Your task to perform on an android device: read, delete, or share a saved page in the chrome app Image 0: 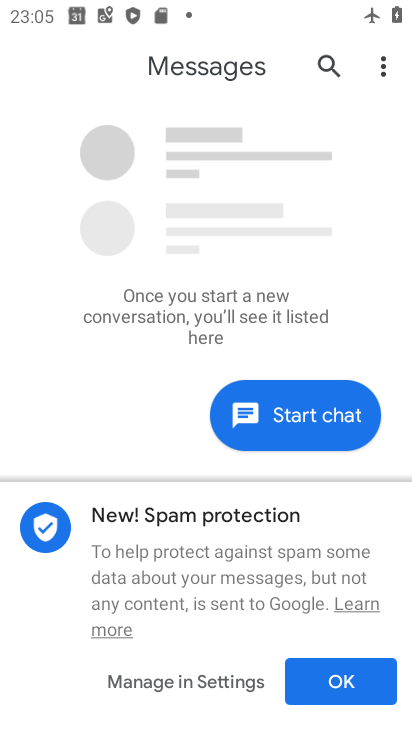
Step 0: press home button
Your task to perform on an android device: read, delete, or share a saved page in the chrome app Image 1: 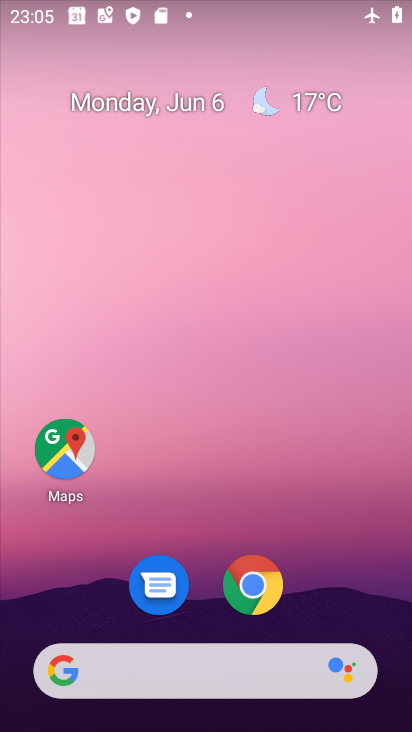
Step 1: click (240, 586)
Your task to perform on an android device: read, delete, or share a saved page in the chrome app Image 2: 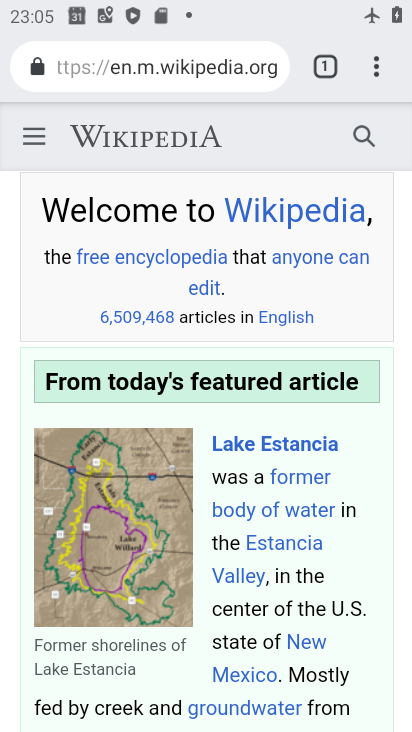
Step 2: click (371, 63)
Your task to perform on an android device: read, delete, or share a saved page in the chrome app Image 3: 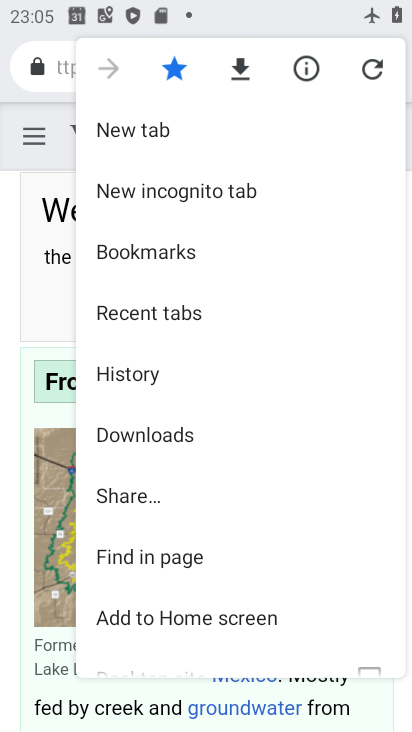
Step 3: click (186, 421)
Your task to perform on an android device: read, delete, or share a saved page in the chrome app Image 4: 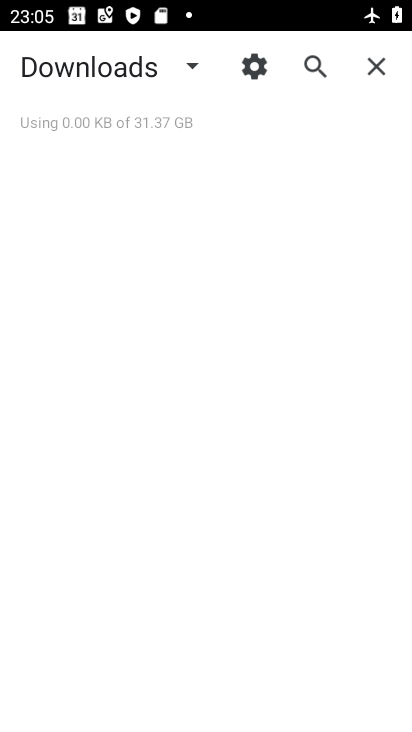
Step 4: task complete